Your task to perform on an android device: change the clock display to digital Image 0: 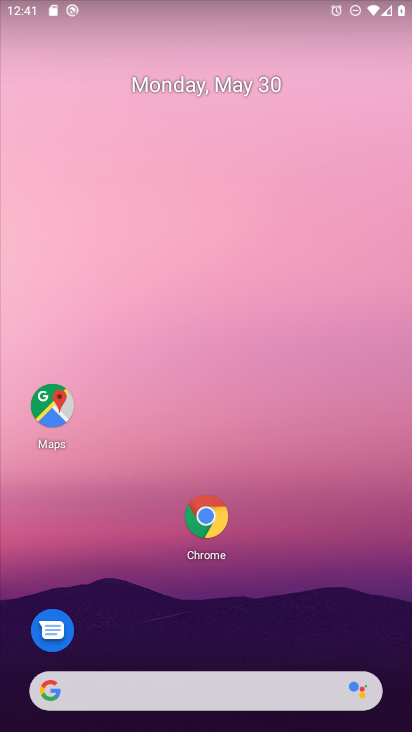
Step 0: press home button
Your task to perform on an android device: change the clock display to digital Image 1: 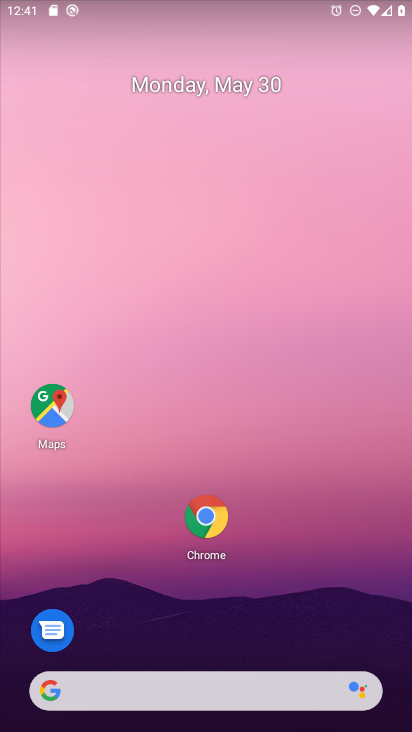
Step 1: drag from (187, 696) to (280, 206)
Your task to perform on an android device: change the clock display to digital Image 2: 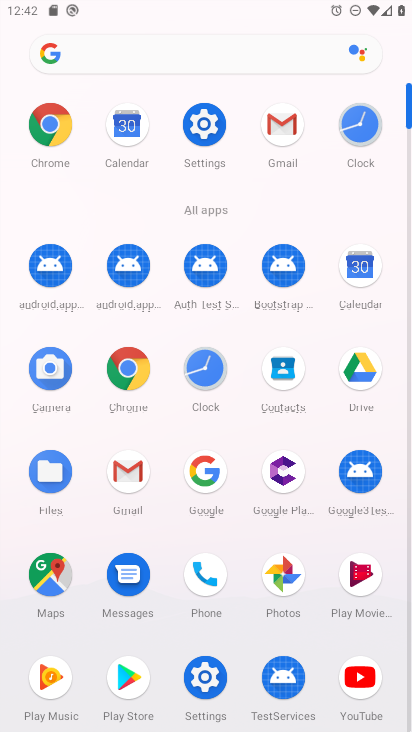
Step 2: click (348, 116)
Your task to perform on an android device: change the clock display to digital Image 3: 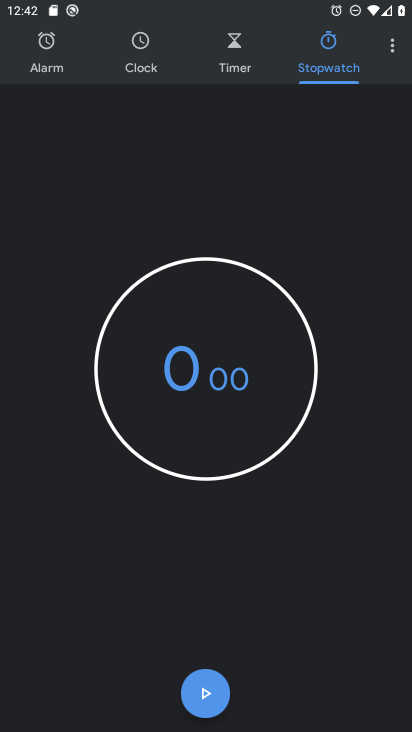
Step 3: click (393, 46)
Your task to perform on an android device: change the clock display to digital Image 4: 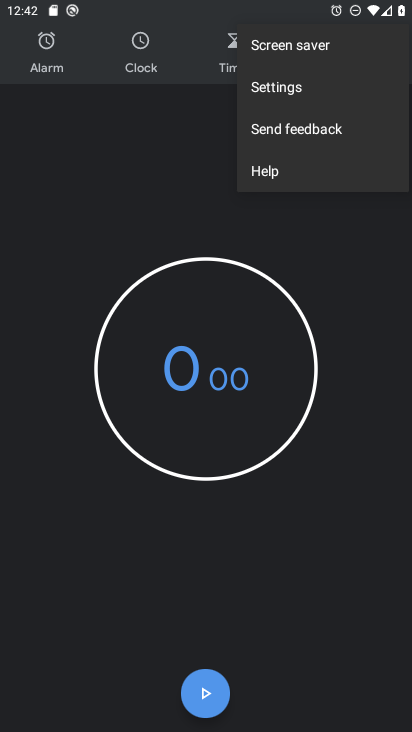
Step 4: click (293, 95)
Your task to perform on an android device: change the clock display to digital Image 5: 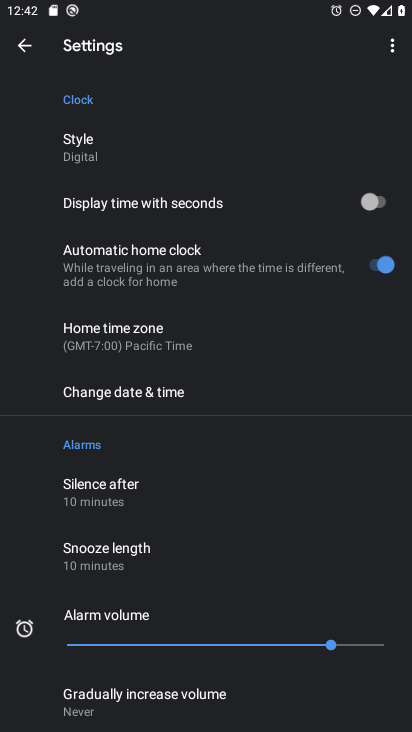
Step 5: task complete